Your task to perform on an android device: Open Google Maps Image 0: 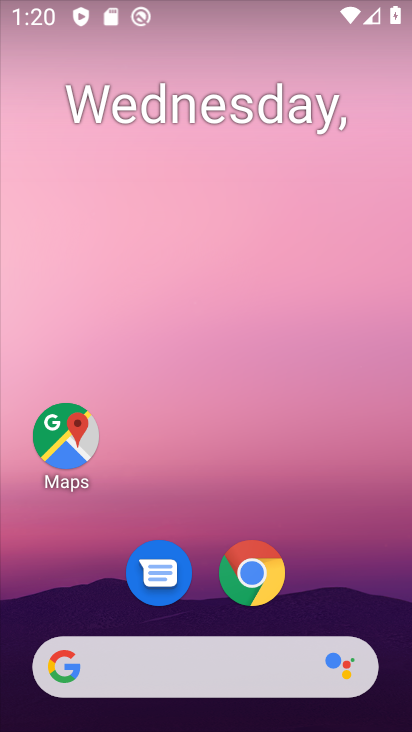
Step 0: click (67, 433)
Your task to perform on an android device: Open Google Maps Image 1: 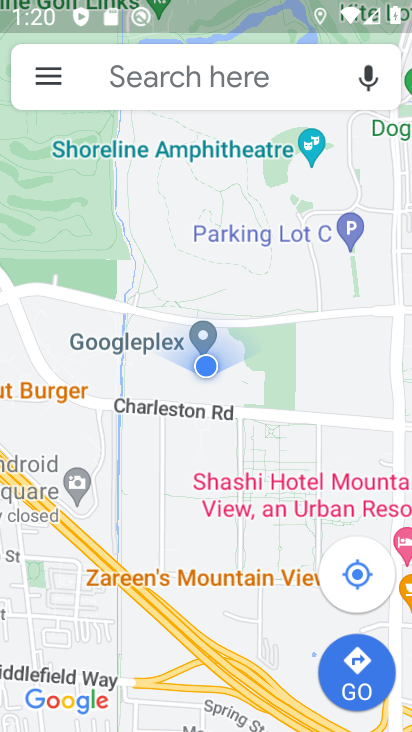
Step 1: task complete